Your task to perform on an android device: Open Android settings Image 0: 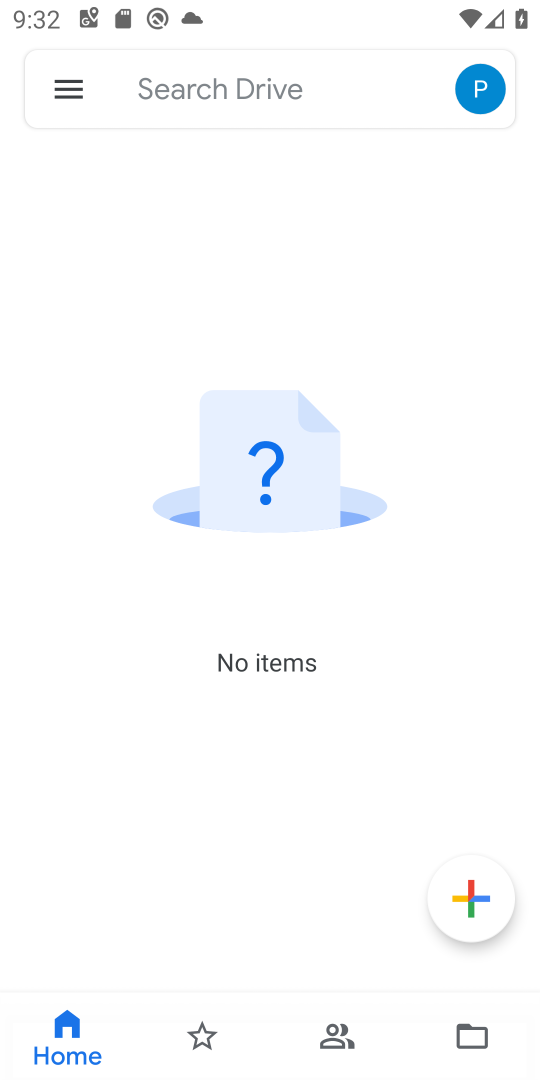
Step 0: press home button
Your task to perform on an android device: Open Android settings Image 1: 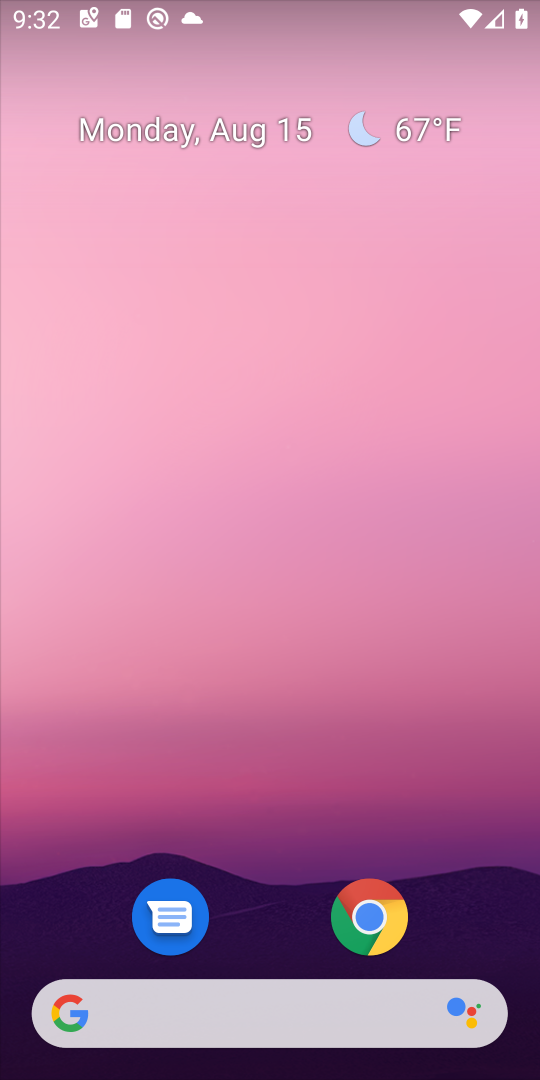
Step 1: drag from (290, 755) to (298, 9)
Your task to perform on an android device: Open Android settings Image 2: 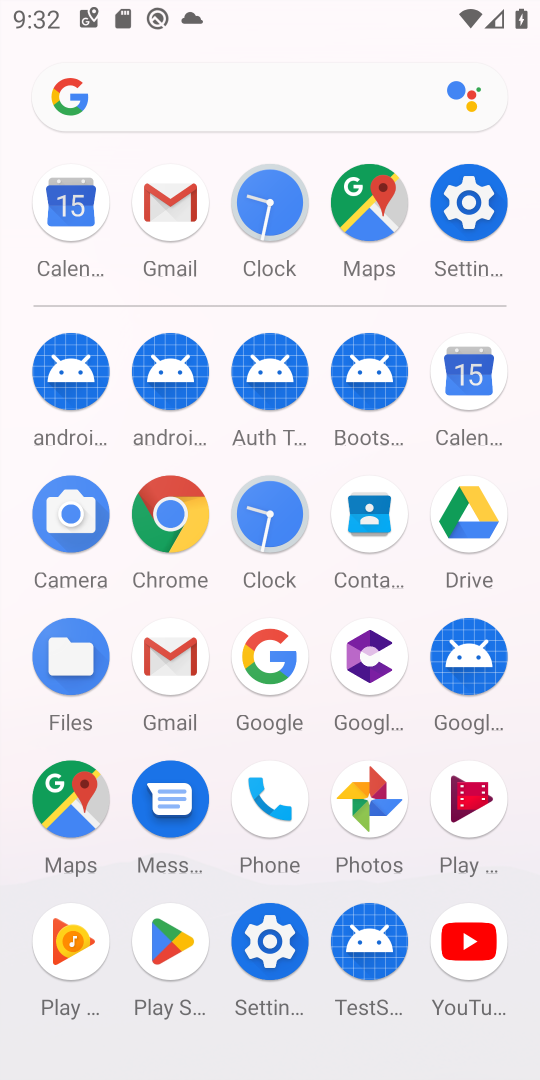
Step 2: click (458, 201)
Your task to perform on an android device: Open Android settings Image 3: 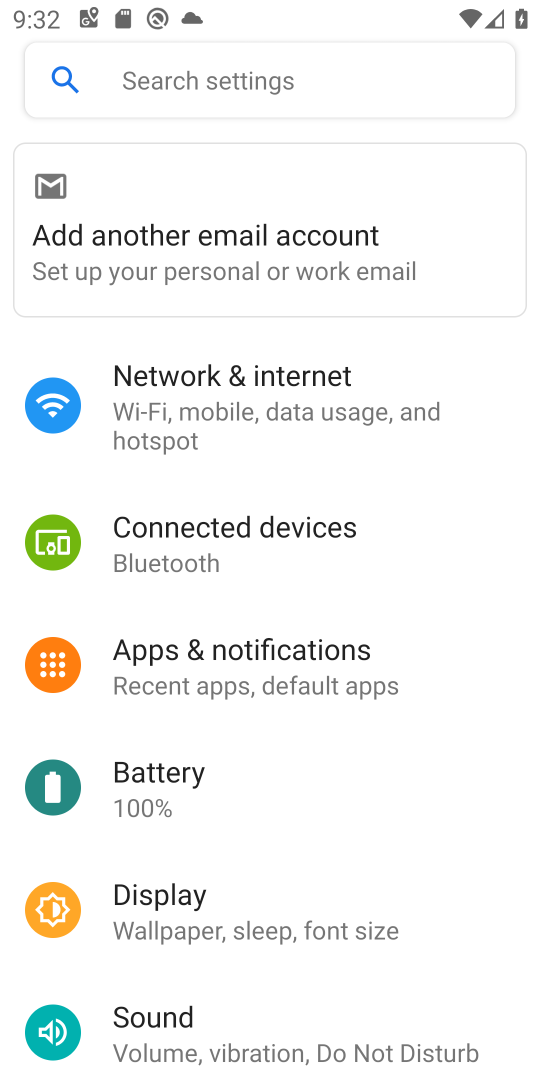
Step 3: drag from (263, 759) to (311, 8)
Your task to perform on an android device: Open Android settings Image 4: 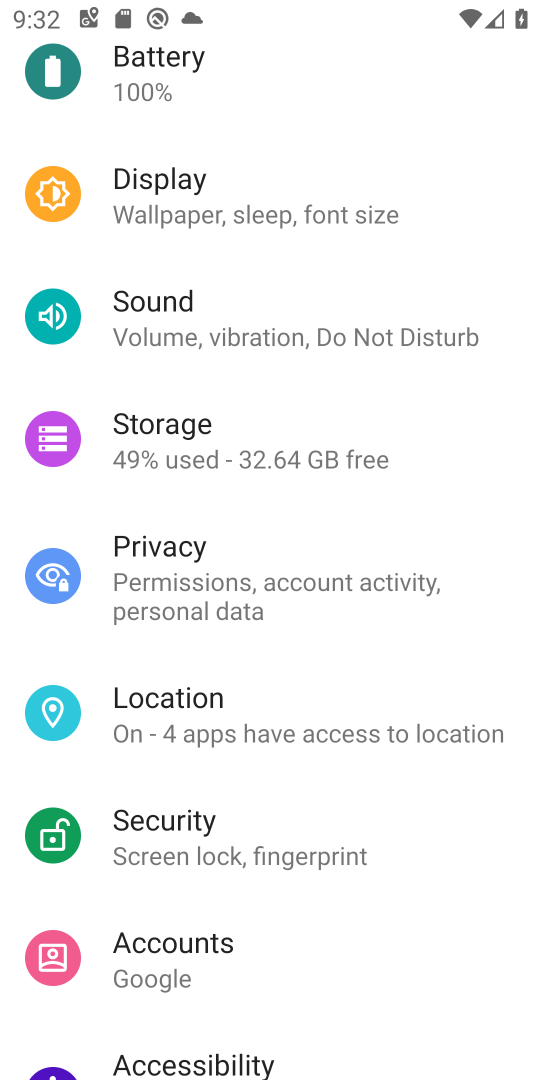
Step 4: drag from (327, 668) to (327, 0)
Your task to perform on an android device: Open Android settings Image 5: 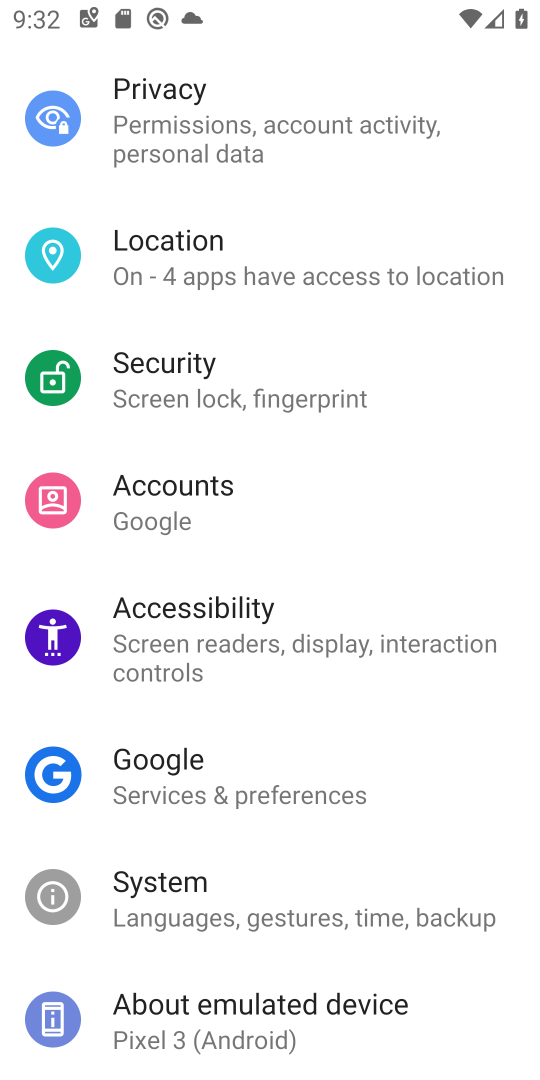
Step 5: click (268, 1008)
Your task to perform on an android device: Open Android settings Image 6: 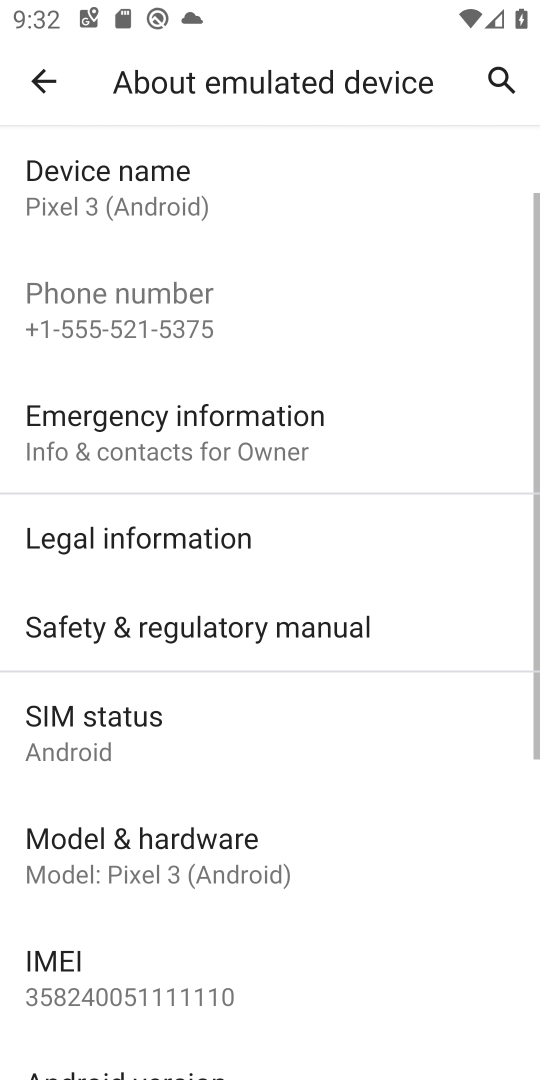
Step 6: task complete